Your task to perform on an android device: Search for "jbl charge 4" on costco.com, select the first entry, and add it to the cart. Image 0: 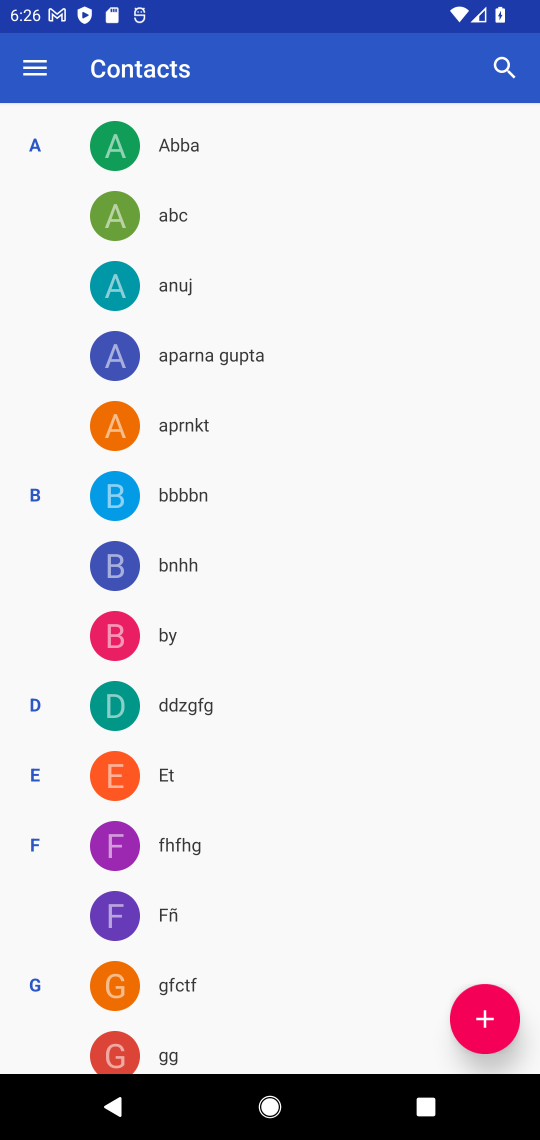
Step 0: press home button
Your task to perform on an android device: Search for "jbl charge 4" on costco.com, select the first entry, and add it to the cart. Image 1: 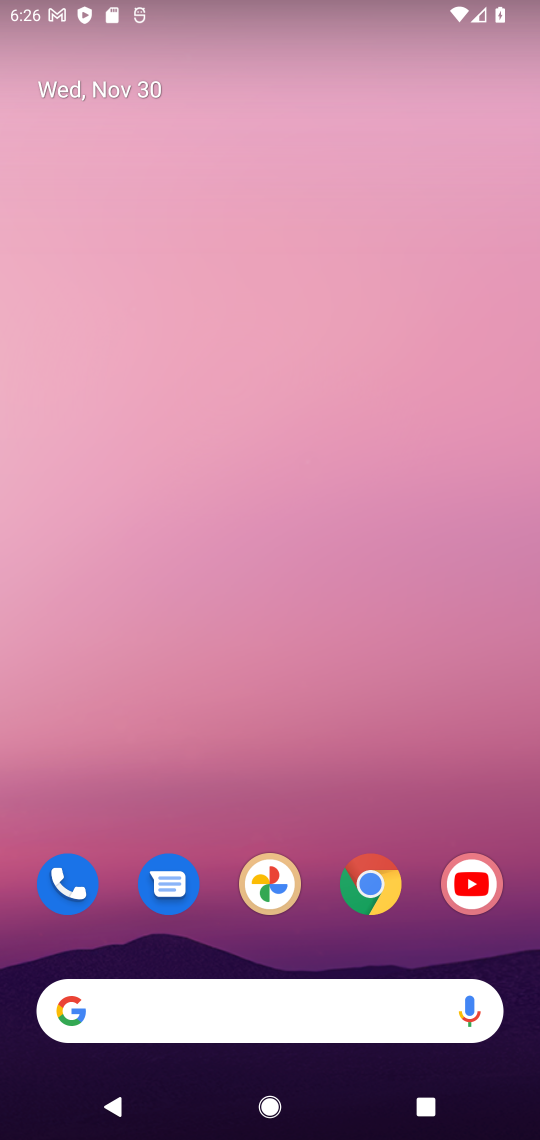
Step 1: click (375, 885)
Your task to perform on an android device: Search for "jbl charge 4" on costco.com, select the first entry, and add it to the cart. Image 2: 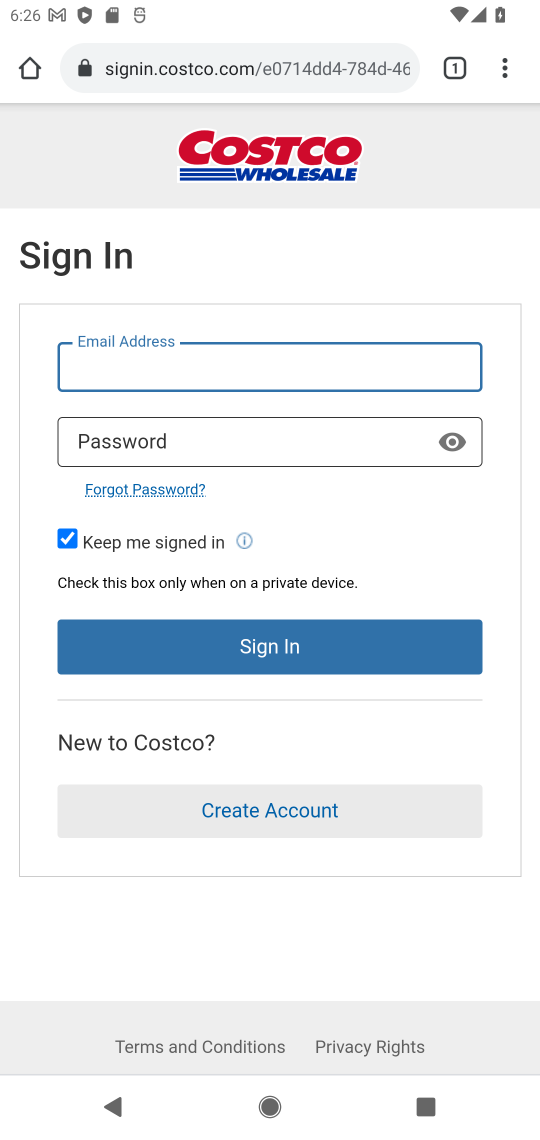
Step 2: press back button
Your task to perform on an android device: Search for "jbl charge 4" on costco.com, select the first entry, and add it to the cart. Image 3: 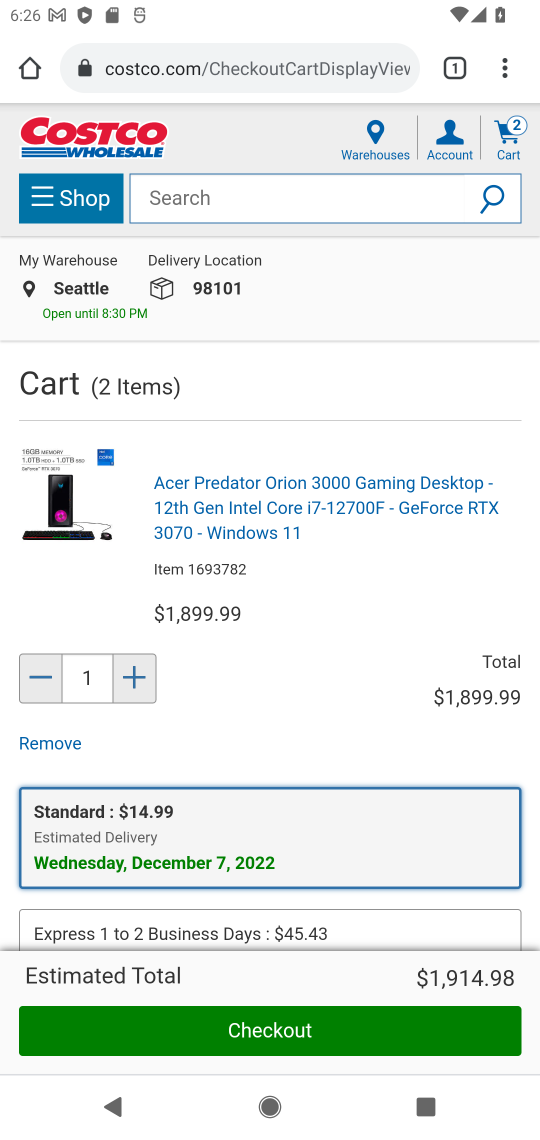
Step 3: click (231, 210)
Your task to perform on an android device: Search for "jbl charge 4" on costco.com, select the first entry, and add it to the cart. Image 4: 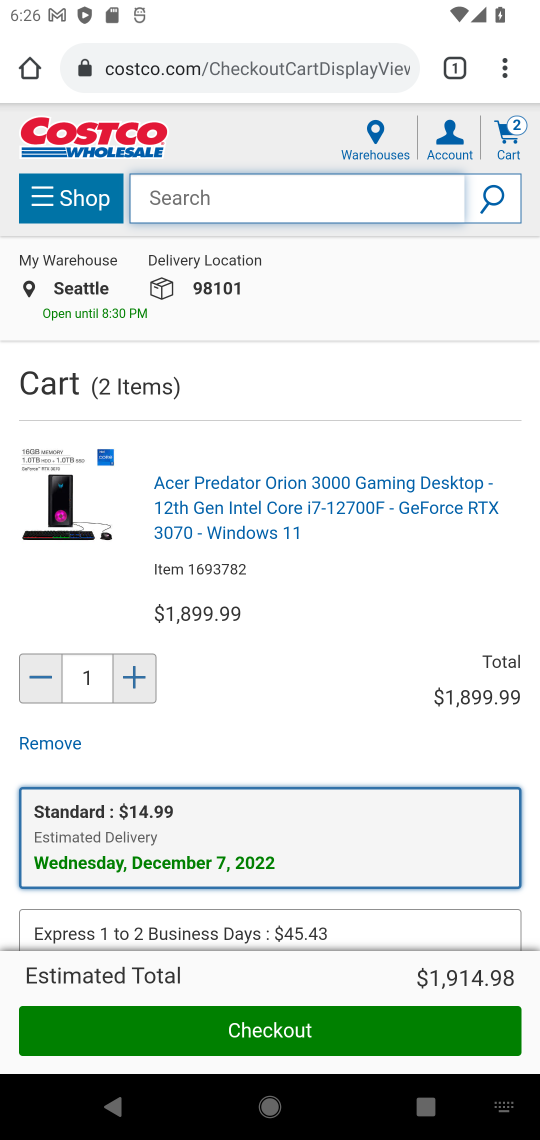
Step 4: type "jbl charge 4"
Your task to perform on an android device: Search for "jbl charge 4" on costco.com, select the first entry, and add it to the cart. Image 5: 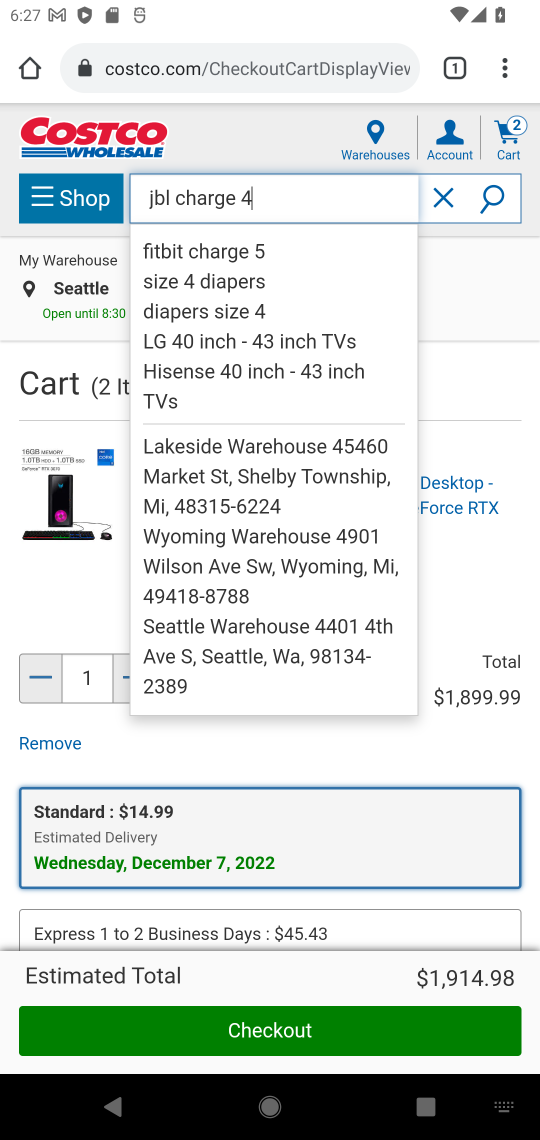
Step 5: click (494, 192)
Your task to perform on an android device: Search for "jbl charge 4" on costco.com, select the first entry, and add it to the cart. Image 6: 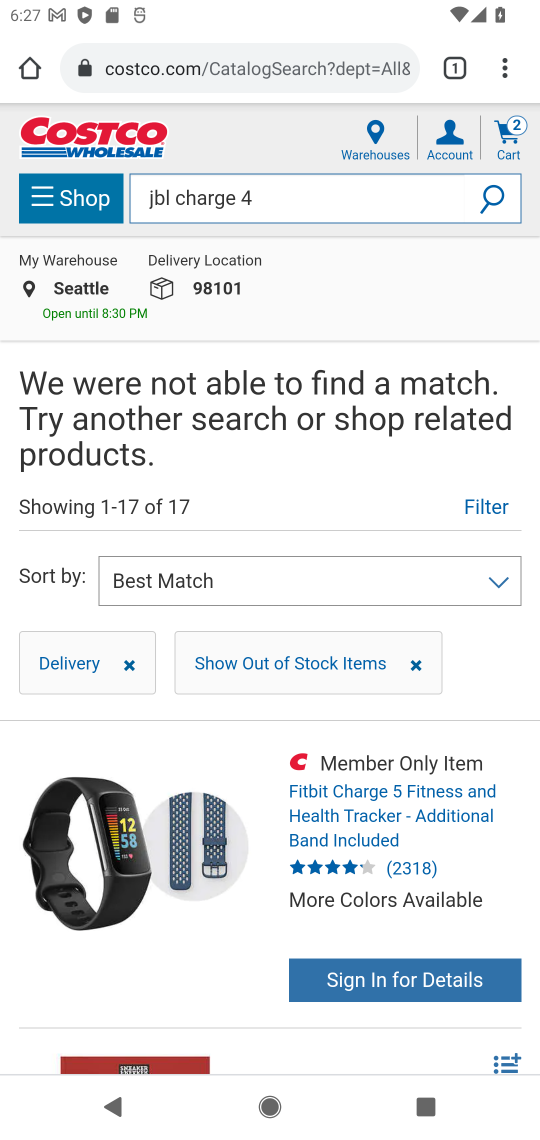
Step 6: task complete